Your task to perform on an android device: clear all cookies in the chrome app Image 0: 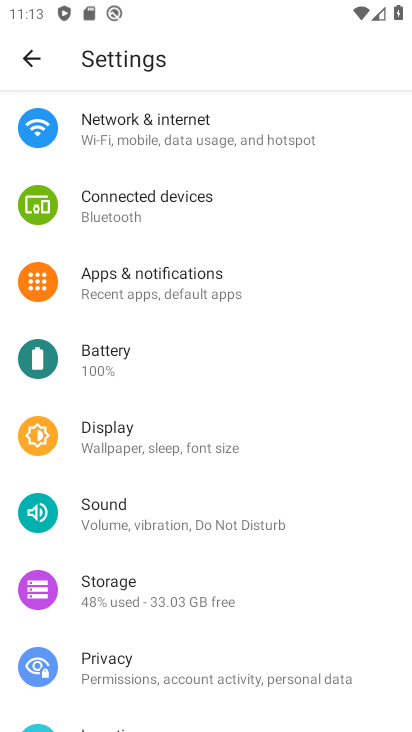
Step 0: press home button
Your task to perform on an android device: clear all cookies in the chrome app Image 1: 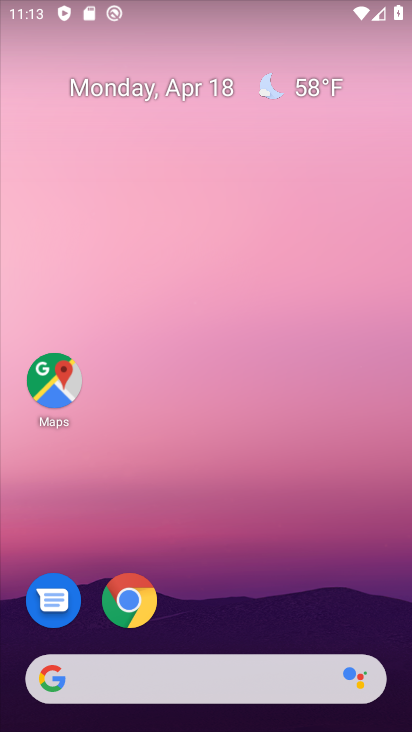
Step 1: click (142, 592)
Your task to perform on an android device: clear all cookies in the chrome app Image 2: 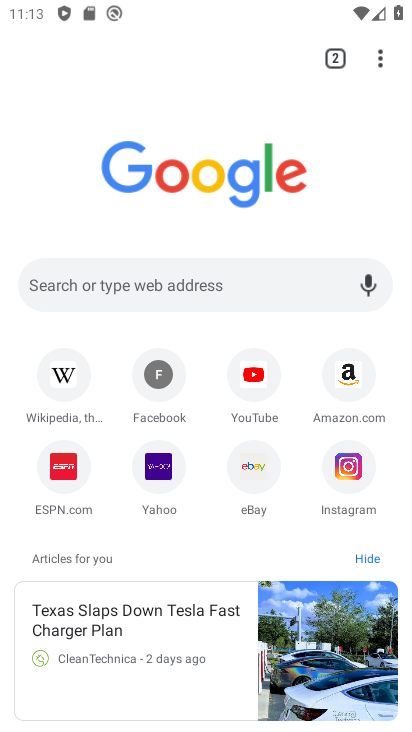
Step 2: click (382, 66)
Your task to perform on an android device: clear all cookies in the chrome app Image 3: 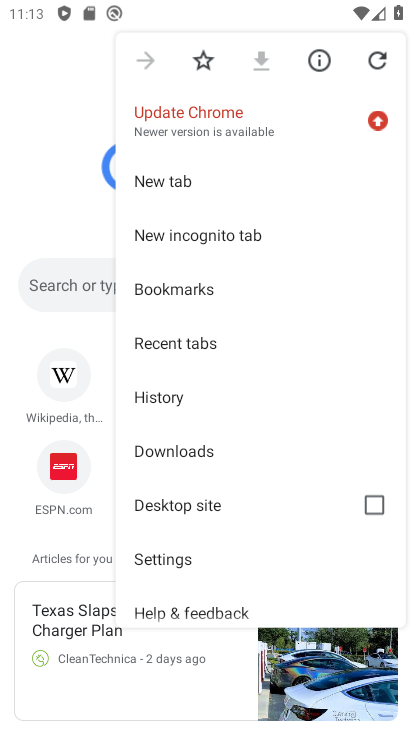
Step 3: click (172, 401)
Your task to perform on an android device: clear all cookies in the chrome app Image 4: 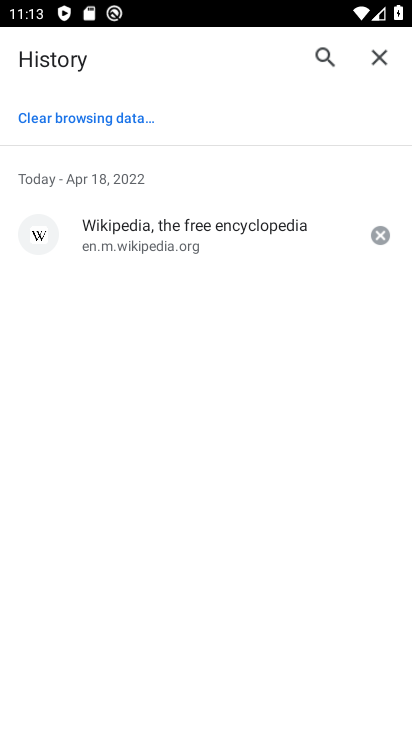
Step 4: click (101, 123)
Your task to perform on an android device: clear all cookies in the chrome app Image 5: 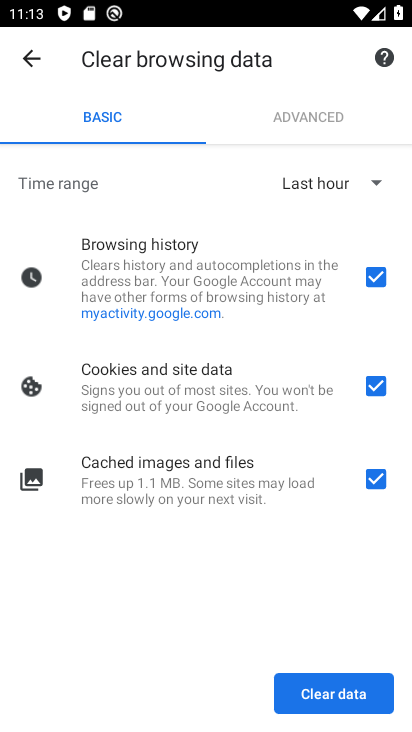
Step 5: click (372, 272)
Your task to perform on an android device: clear all cookies in the chrome app Image 6: 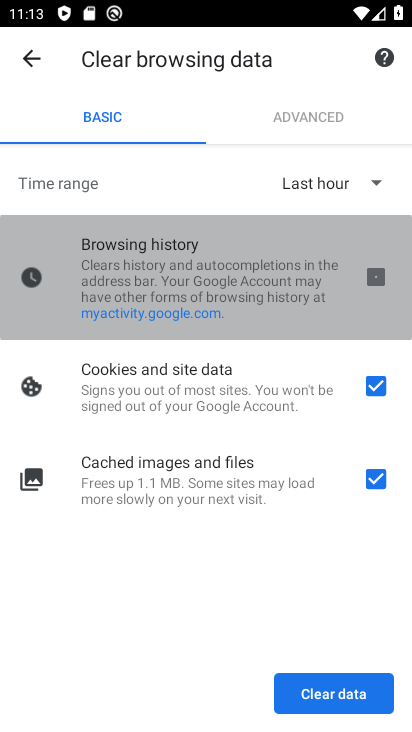
Step 6: click (374, 489)
Your task to perform on an android device: clear all cookies in the chrome app Image 7: 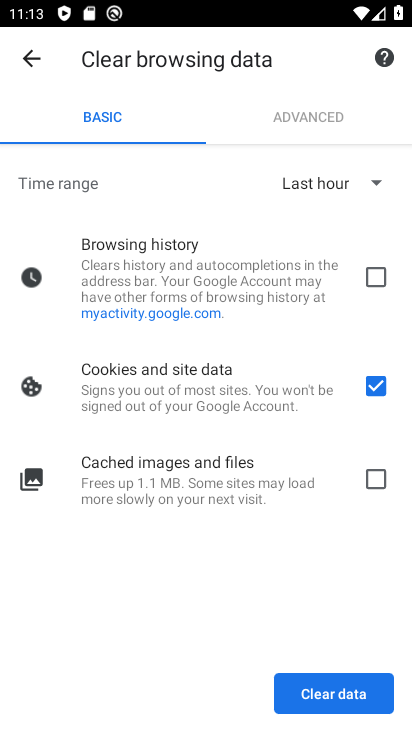
Step 7: click (341, 693)
Your task to perform on an android device: clear all cookies in the chrome app Image 8: 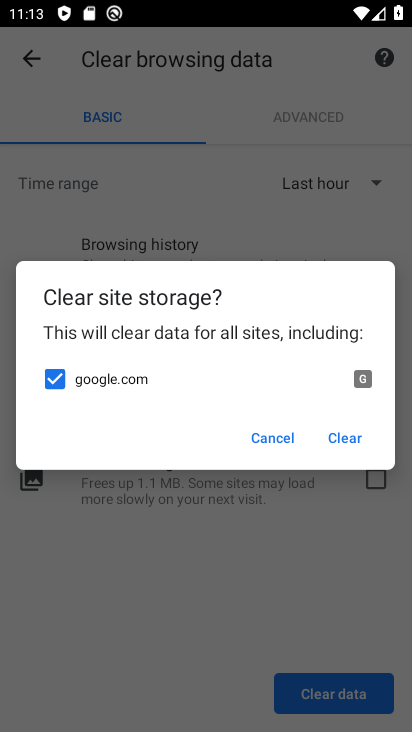
Step 8: click (352, 437)
Your task to perform on an android device: clear all cookies in the chrome app Image 9: 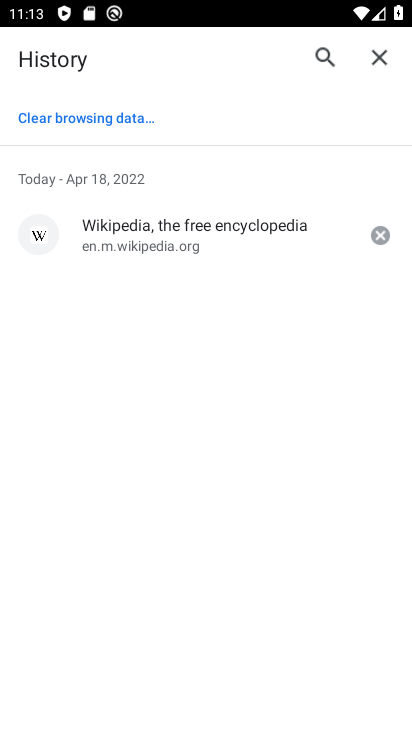
Step 9: task complete